Your task to perform on an android device: Go to Reddit.com Image 0: 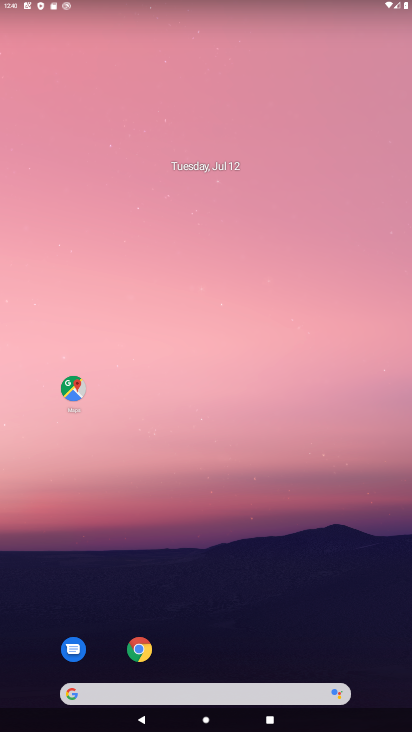
Step 0: click (147, 649)
Your task to perform on an android device: Go to Reddit.com Image 1: 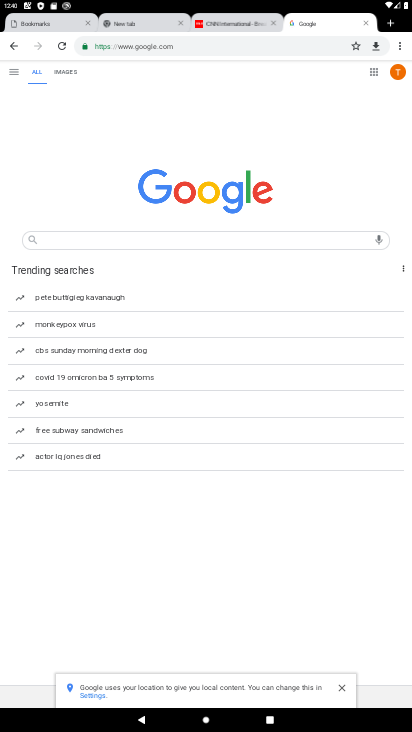
Step 1: click (245, 241)
Your task to perform on an android device: Go to Reddit.com Image 2: 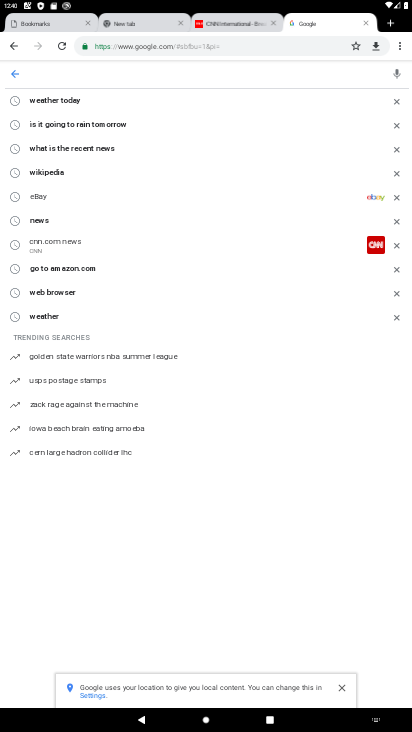
Step 2: click (37, 18)
Your task to perform on an android device: Go to Reddit.com Image 3: 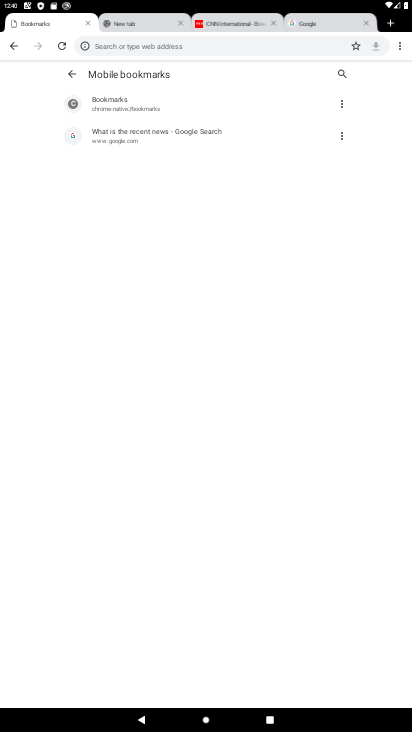
Step 3: click (147, 36)
Your task to perform on an android device: Go to Reddit.com Image 4: 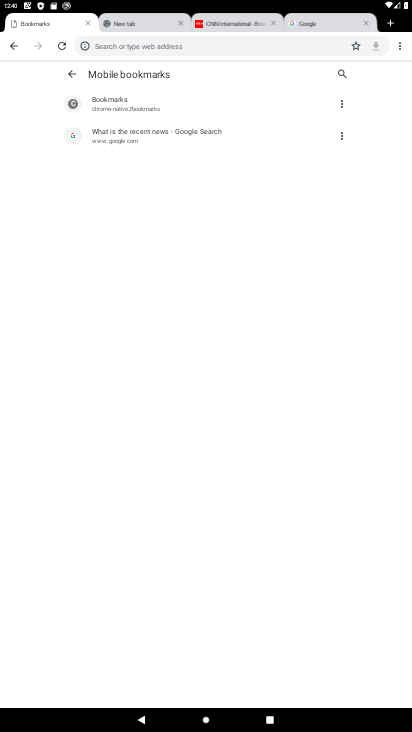
Step 4: click (147, 25)
Your task to perform on an android device: Go to Reddit.com Image 5: 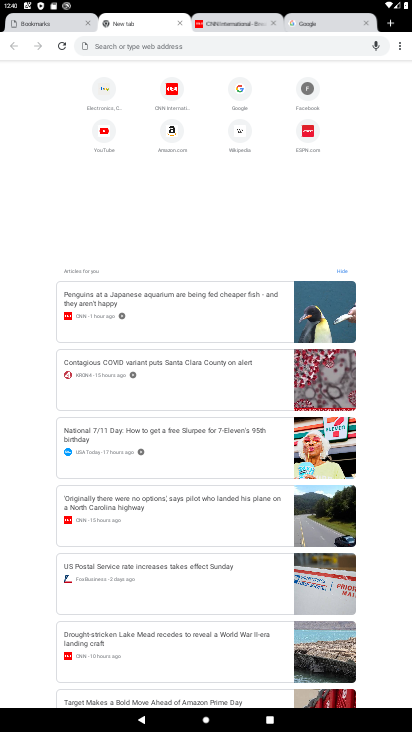
Step 5: click (224, 27)
Your task to perform on an android device: Go to Reddit.com Image 6: 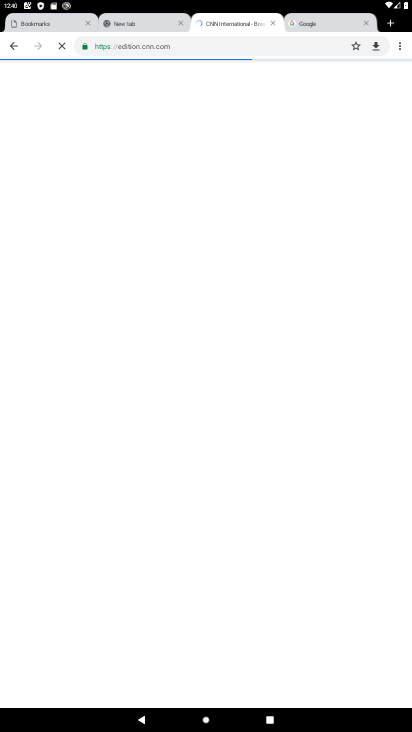
Step 6: click (307, 27)
Your task to perform on an android device: Go to Reddit.com Image 7: 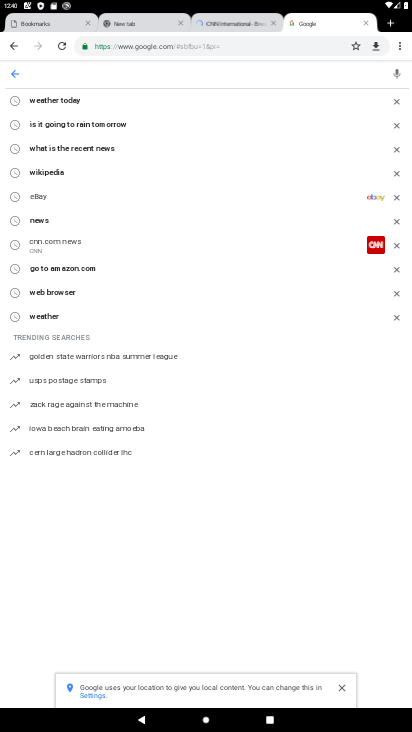
Step 7: click (277, 43)
Your task to perform on an android device: Go to Reddit.com Image 8: 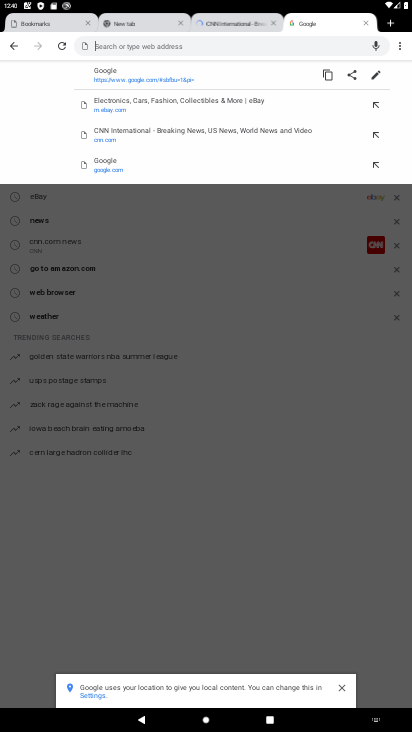
Step 8: type "REDDIT"
Your task to perform on an android device: Go to Reddit.com Image 9: 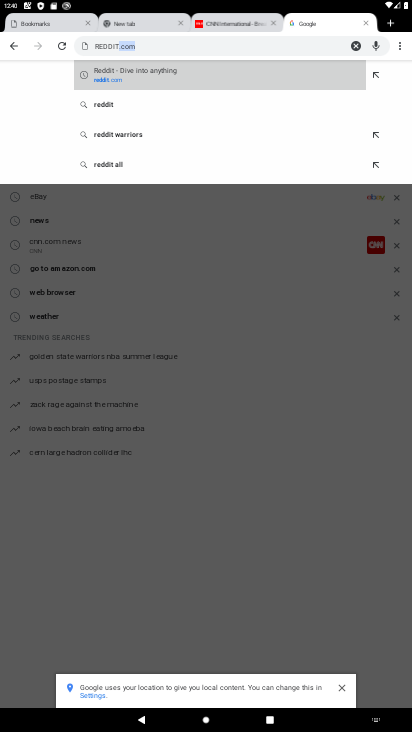
Step 9: click (197, 87)
Your task to perform on an android device: Go to Reddit.com Image 10: 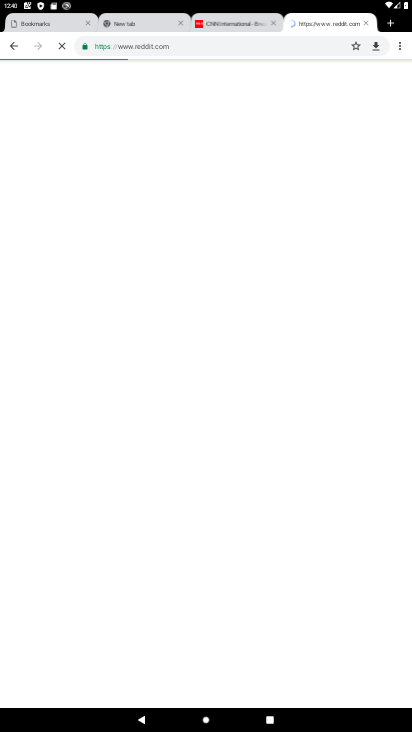
Step 10: task complete